Your task to perform on an android device: Open calendar and show me the first week of next month Image 0: 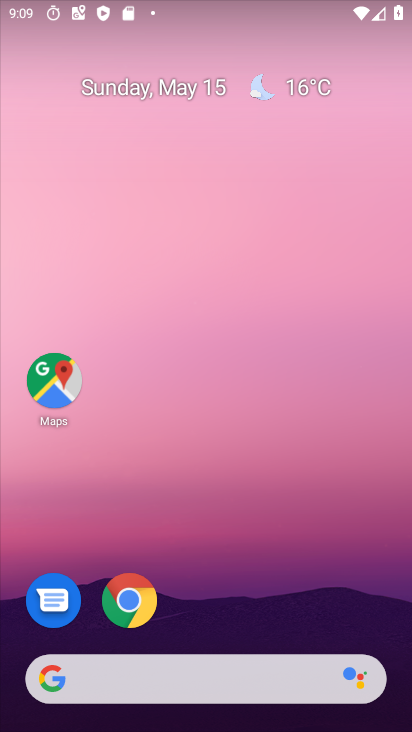
Step 0: drag from (303, 370) to (331, 84)
Your task to perform on an android device: Open calendar and show me the first week of next month Image 1: 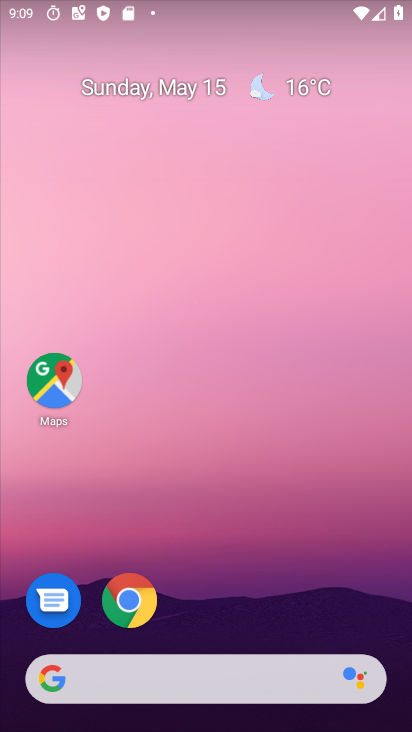
Step 1: drag from (210, 596) to (256, 158)
Your task to perform on an android device: Open calendar and show me the first week of next month Image 2: 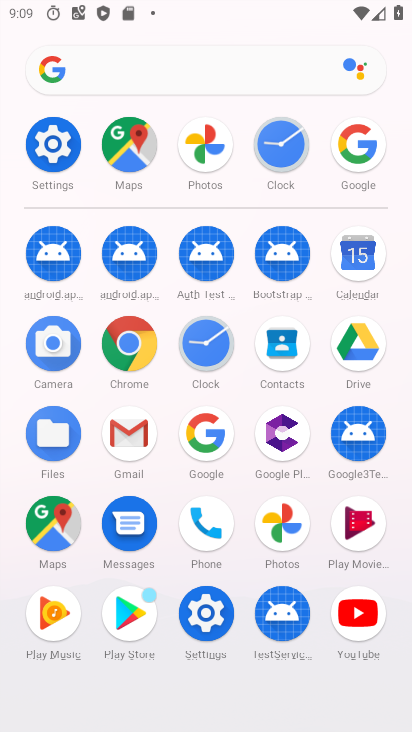
Step 2: click (359, 254)
Your task to perform on an android device: Open calendar and show me the first week of next month Image 3: 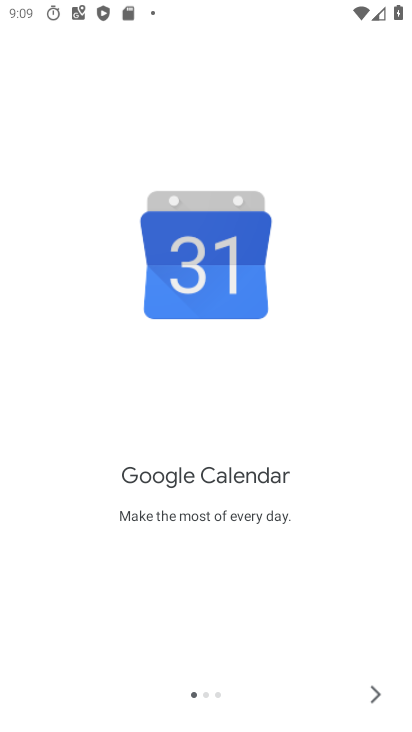
Step 3: click (365, 689)
Your task to perform on an android device: Open calendar and show me the first week of next month Image 4: 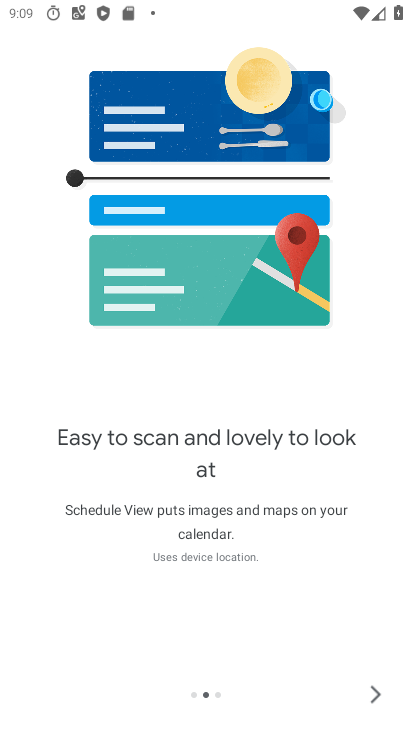
Step 4: click (365, 689)
Your task to perform on an android device: Open calendar and show me the first week of next month Image 5: 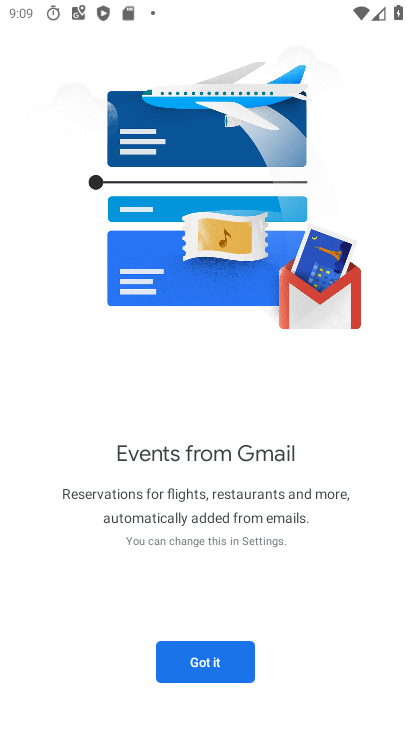
Step 5: click (207, 671)
Your task to perform on an android device: Open calendar and show me the first week of next month Image 6: 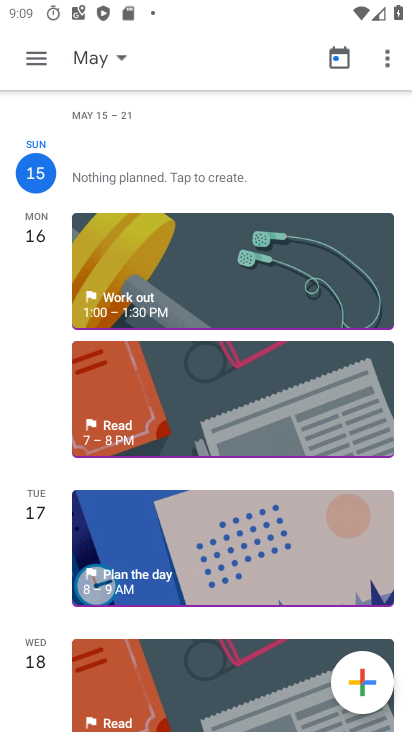
Step 6: click (112, 56)
Your task to perform on an android device: Open calendar and show me the first week of next month Image 7: 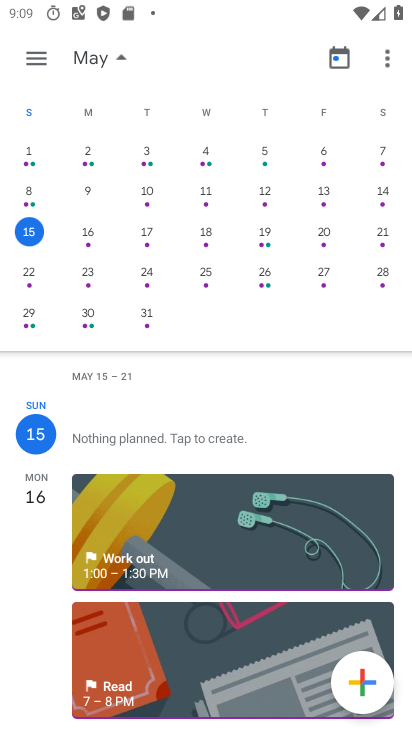
Step 7: drag from (380, 339) to (19, 259)
Your task to perform on an android device: Open calendar and show me the first week of next month Image 8: 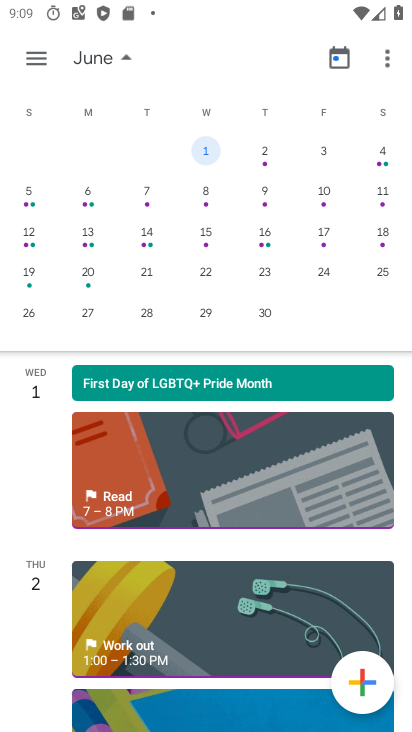
Step 8: click (258, 157)
Your task to perform on an android device: Open calendar and show me the first week of next month Image 9: 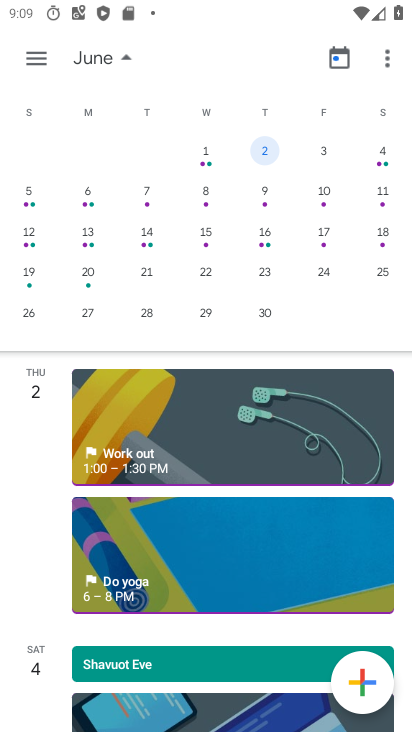
Step 9: task complete